Your task to perform on an android device: Open the web browser Image 0: 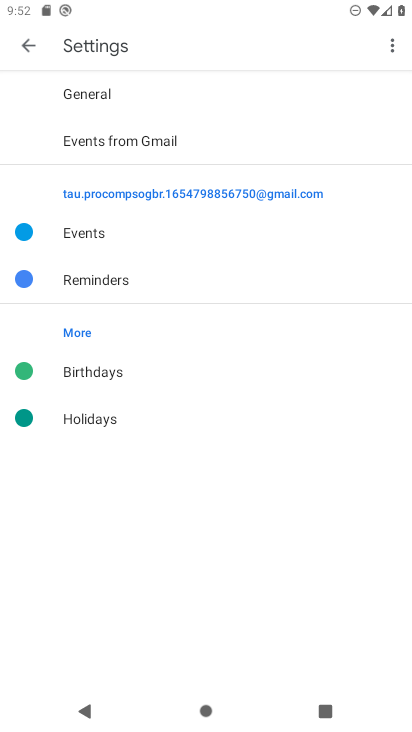
Step 0: press home button
Your task to perform on an android device: Open the web browser Image 1: 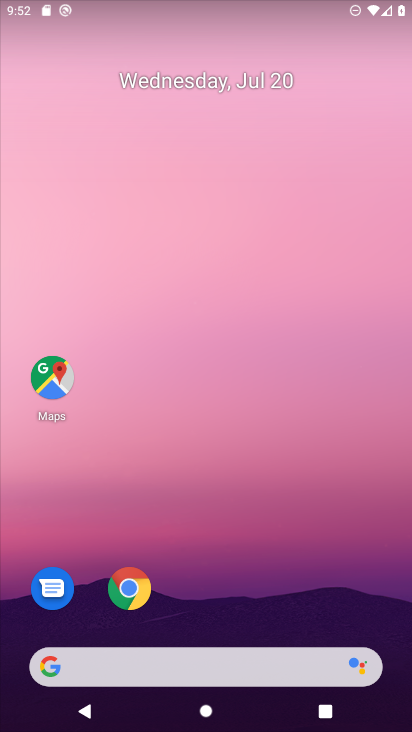
Step 1: click (134, 661)
Your task to perform on an android device: Open the web browser Image 2: 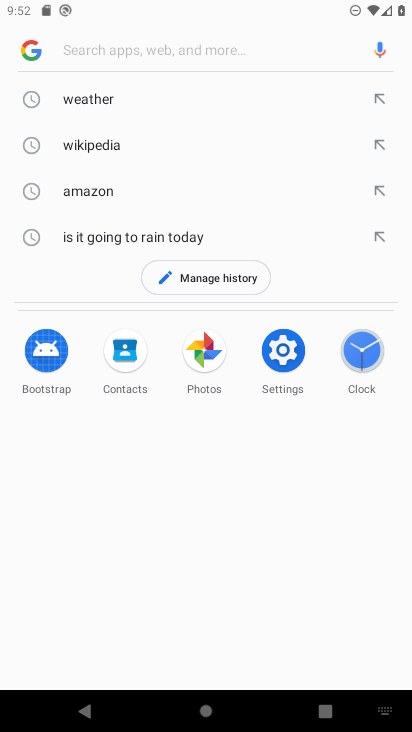
Step 2: task complete